Your task to perform on an android device: visit the assistant section in the google photos Image 0: 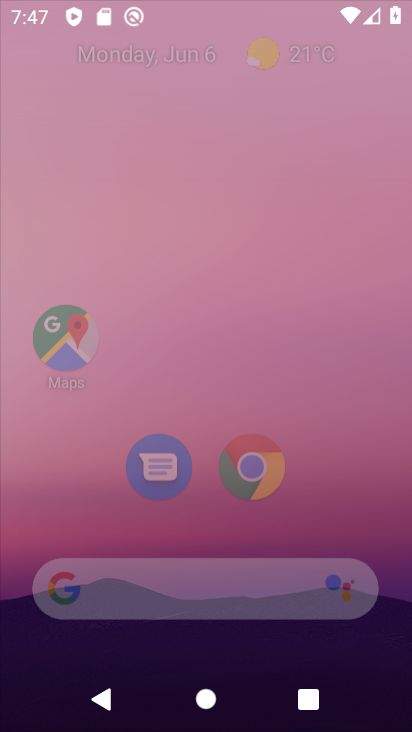
Step 0: click (257, 507)
Your task to perform on an android device: visit the assistant section in the google photos Image 1: 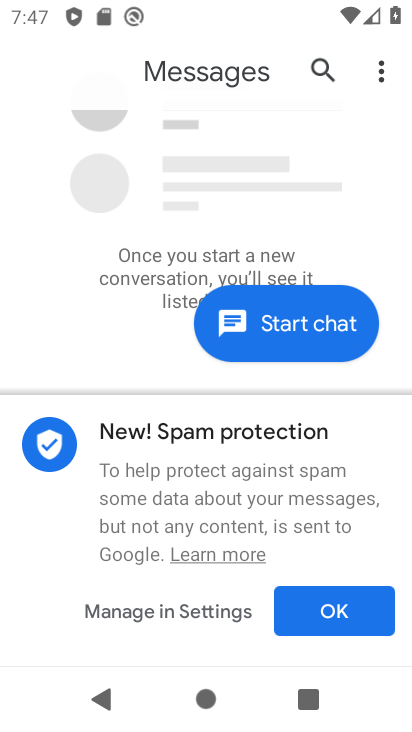
Step 1: press home button
Your task to perform on an android device: visit the assistant section in the google photos Image 2: 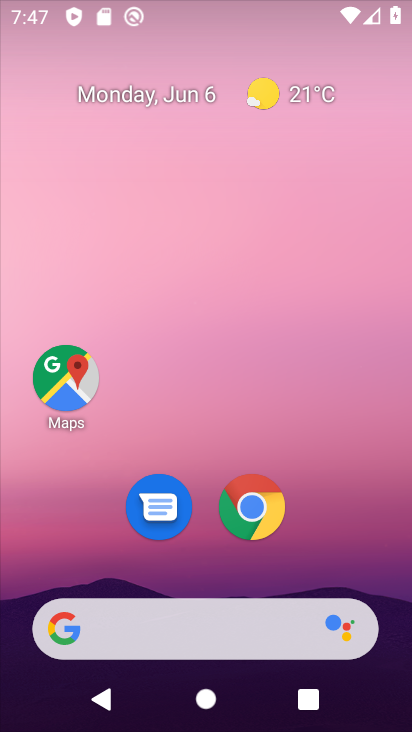
Step 2: drag from (301, 573) to (195, 222)
Your task to perform on an android device: visit the assistant section in the google photos Image 3: 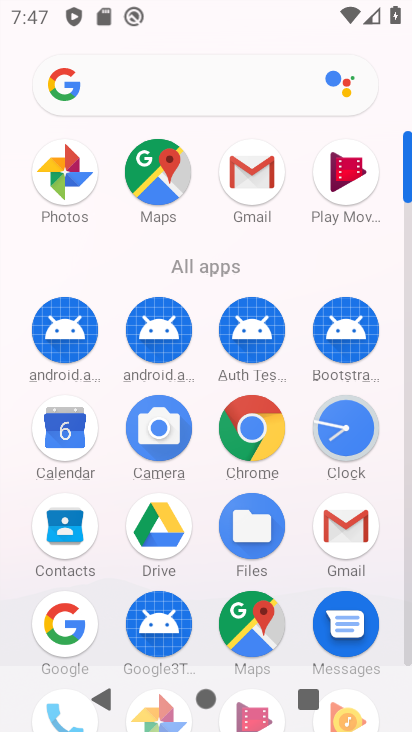
Step 3: click (75, 180)
Your task to perform on an android device: visit the assistant section in the google photos Image 4: 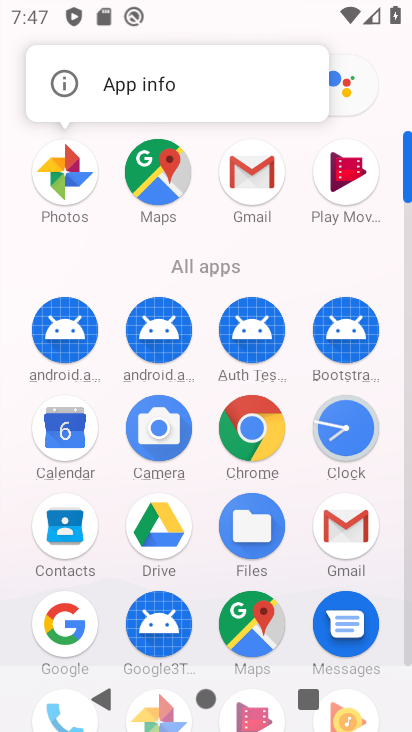
Step 4: click (75, 180)
Your task to perform on an android device: visit the assistant section in the google photos Image 5: 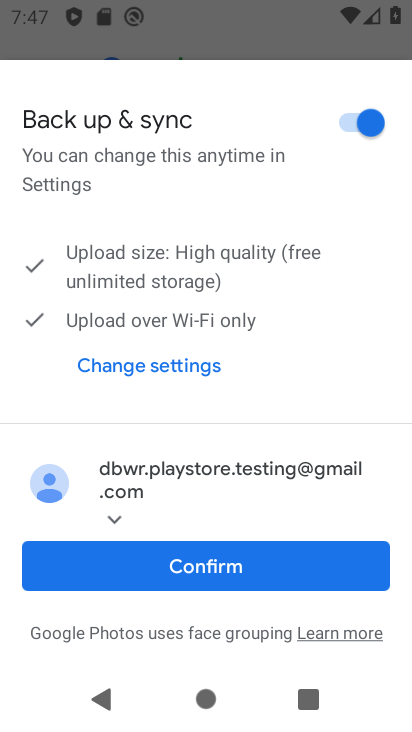
Step 5: click (172, 568)
Your task to perform on an android device: visit the assistant section in the google photos Image 6: 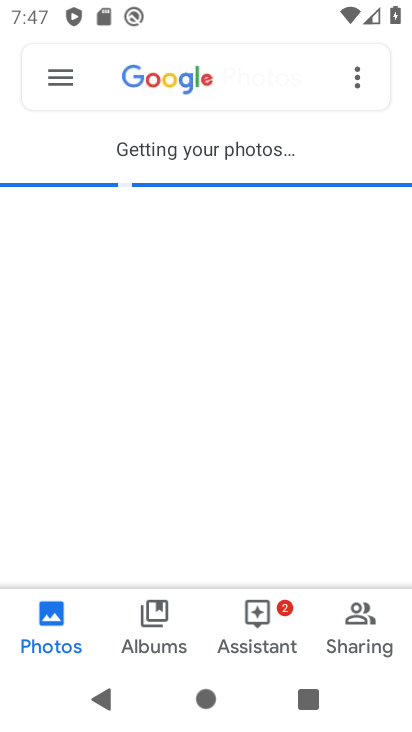
Step 6: click (230, 639)
Your task to perform on an android device: visit the assistant section in the google photos Image 7: 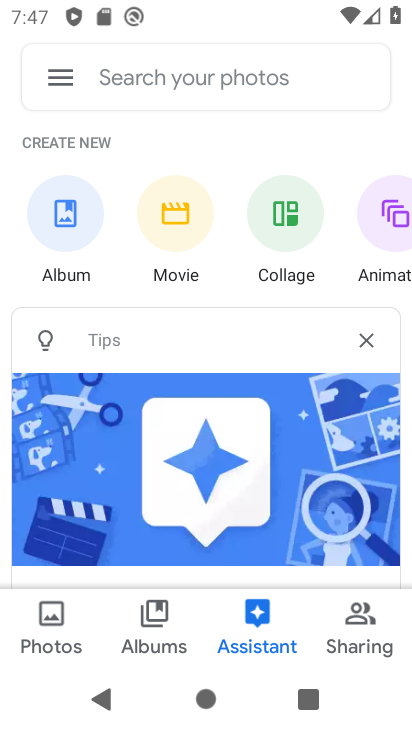
Step 7: task complete